Your task to perform on an android device: clear all cookies in the chrome app Image 0: 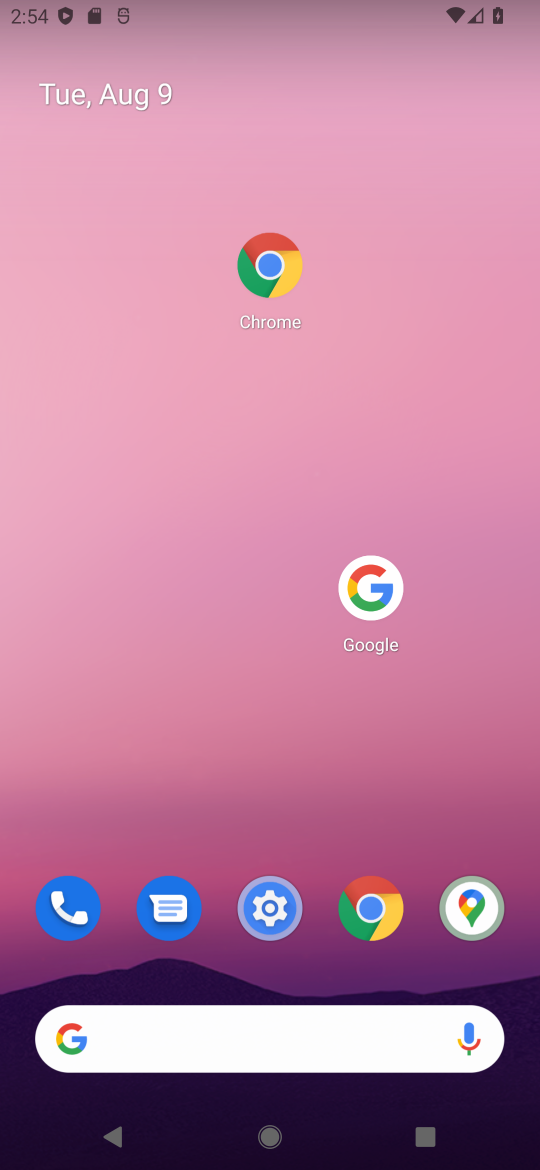
Step 0: press back button
Your task to perform on an android device: clear all cookies in the chrome app Image 1: 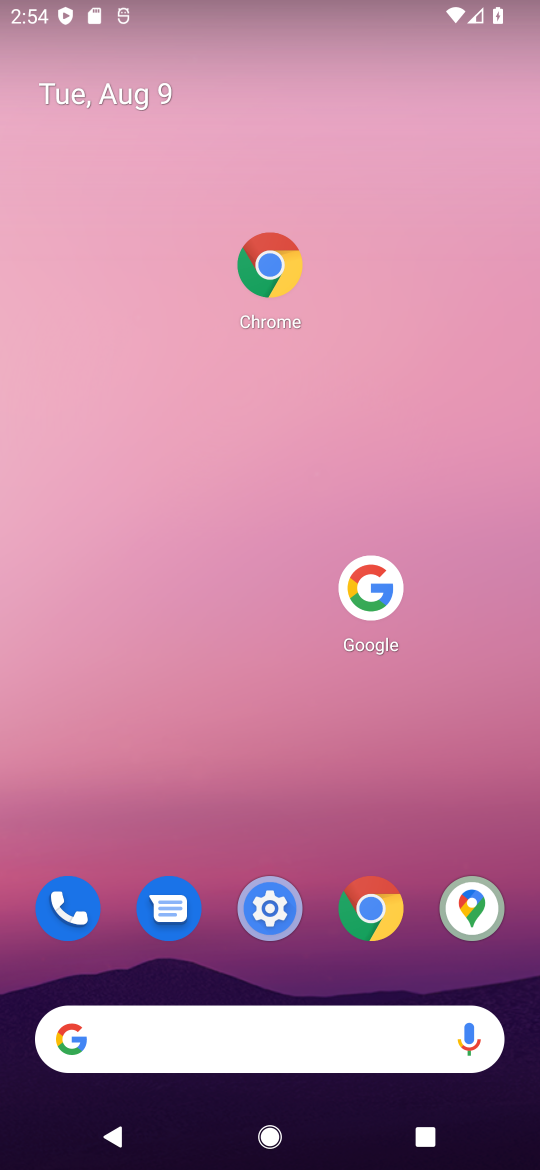
Step 1: drag from (205, 1107) to (160, 332)
Your task to perform on an android device: clear all cookies in the chrome app Image 2: 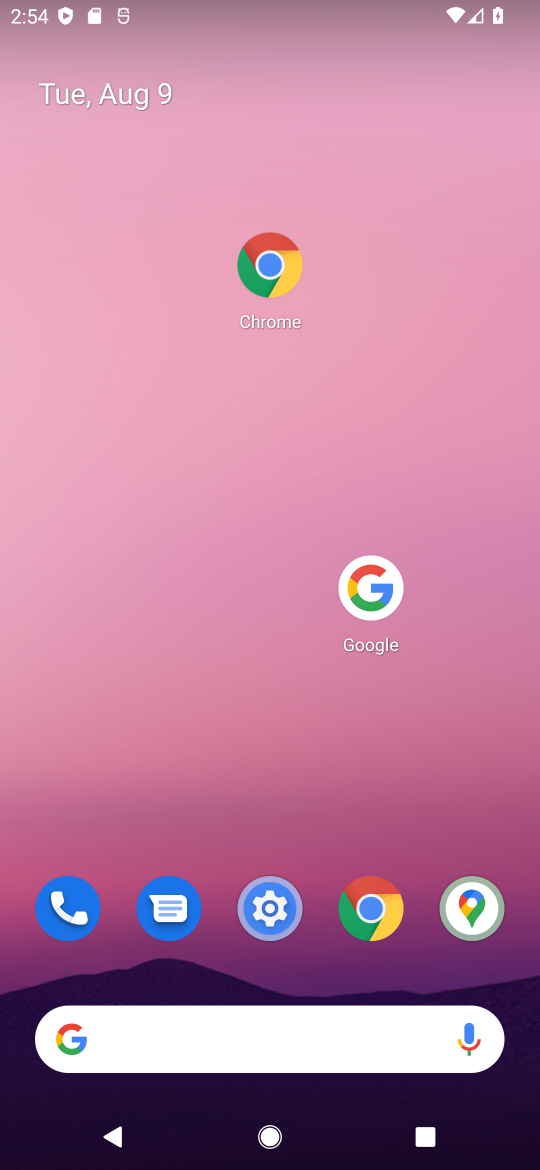
Step 2: drag from (250, 761) to (209, 369)
Your task to perform on an android device: clear all cookies in the chrome app Image 3: 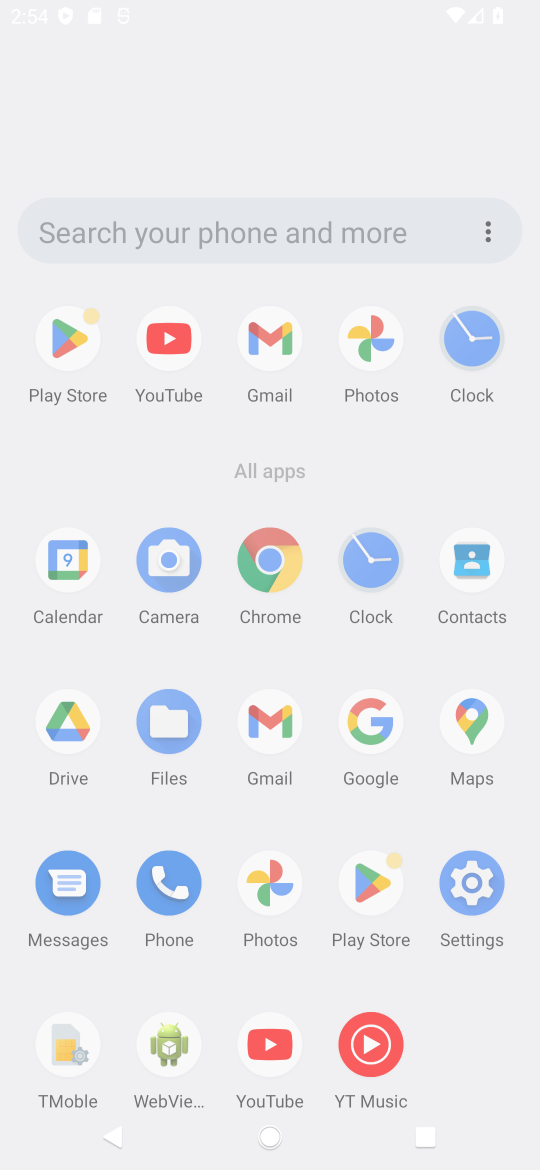
Step 3: click (344, 393)
Your task to perform on an android device: clear all cookies in the chrome app Image 4: 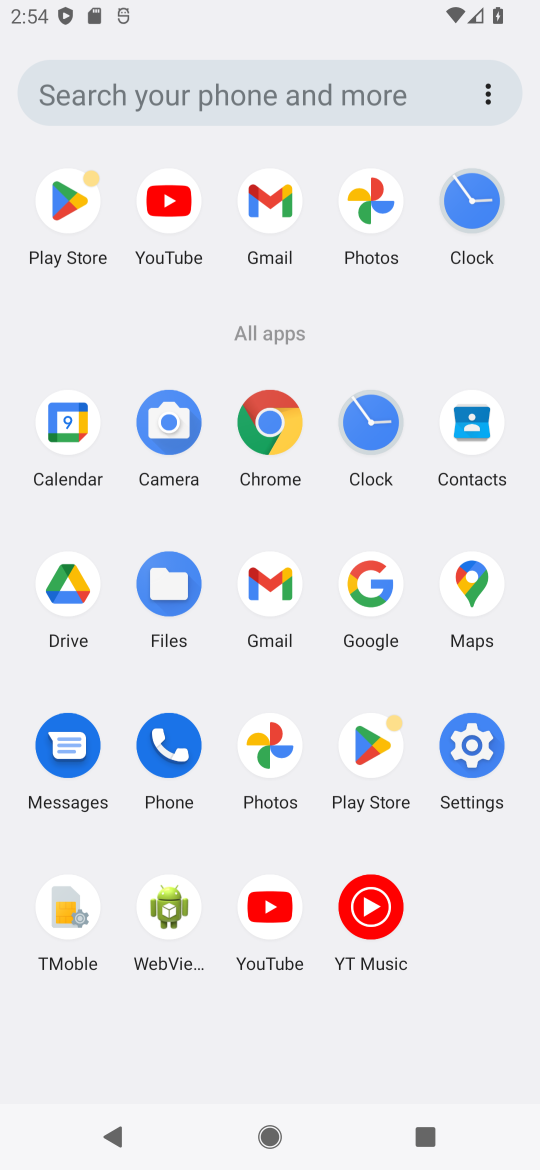
Step 4: drag from (315, 910) to (310, 429)
Your task to perform on an android device: clear all cookies in the chrome app Image 5: 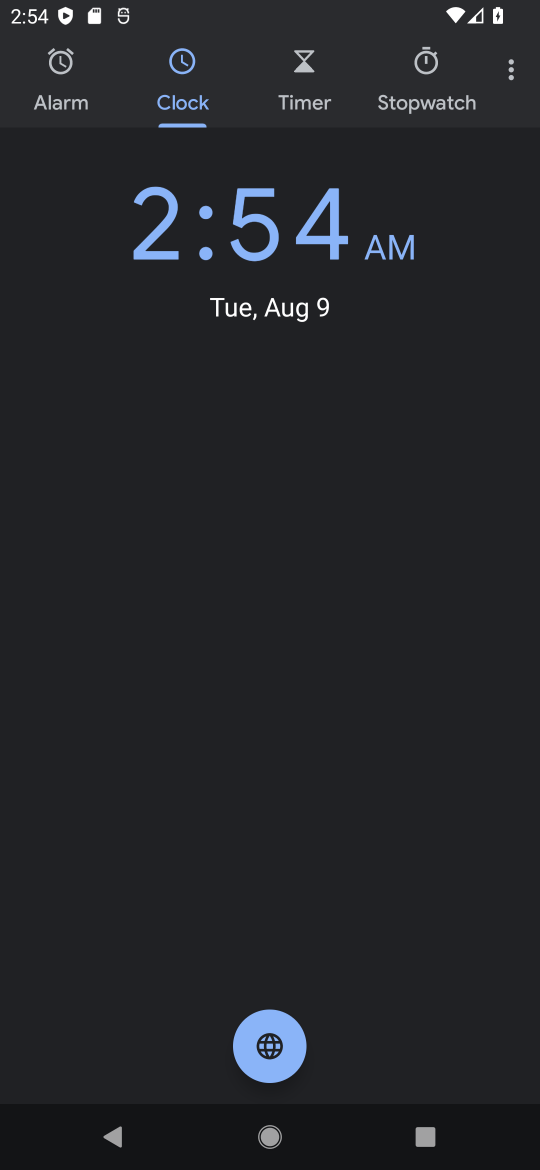
Step 5: press home button
Your task to perform on an android device: clear all cookies in the chrome app Image 6: 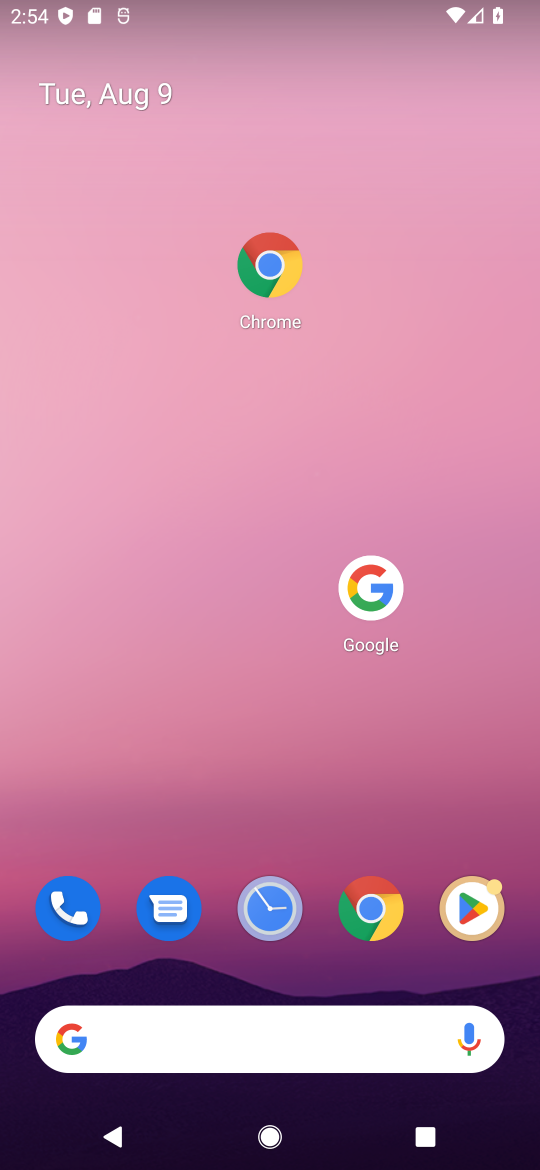
Step 6: drag from (87, 536) to (91, 388)
Your task to perform on an android device: clear all cookies in the chrome app Image 7: 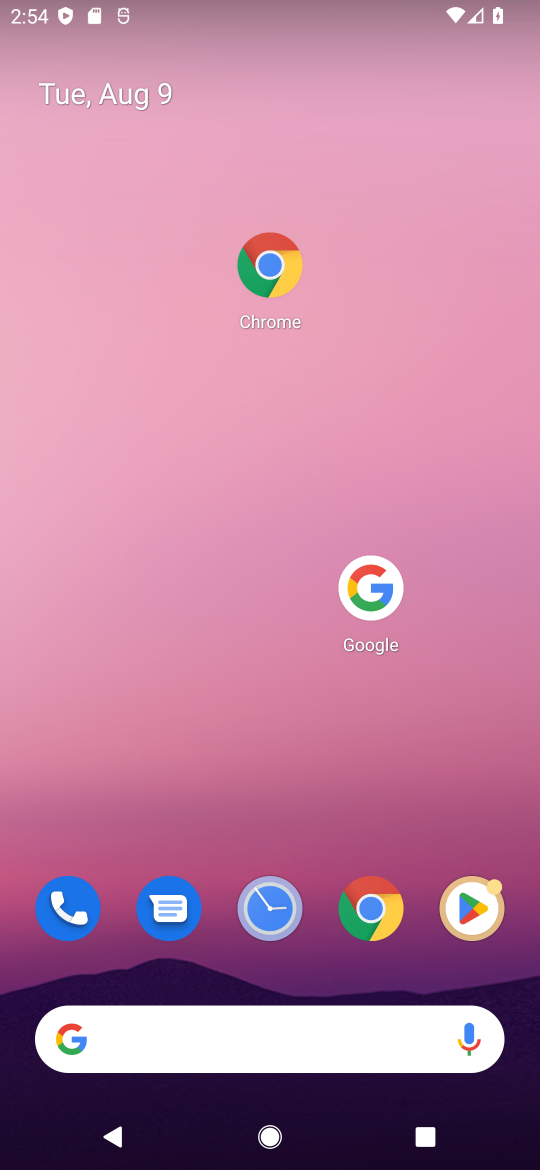
Step 7: click (298, 520)
Your task to perform on an android device: clear all cookies in the chrome app Image 8: 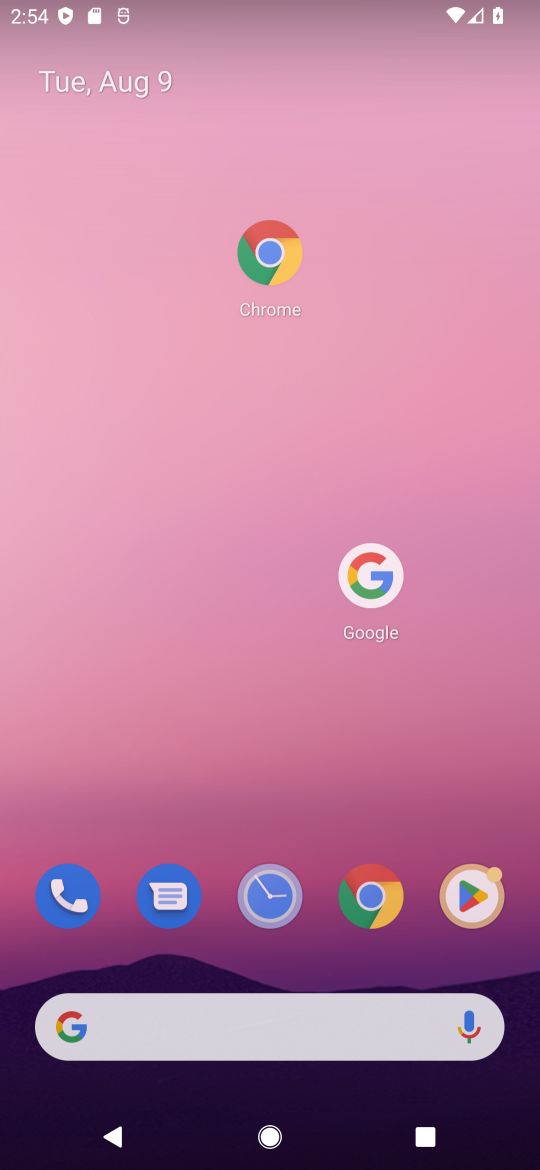
Step 8: click (353, 314)
Your task to perform on an android device: clear all cookies in the chrome app Image 9: 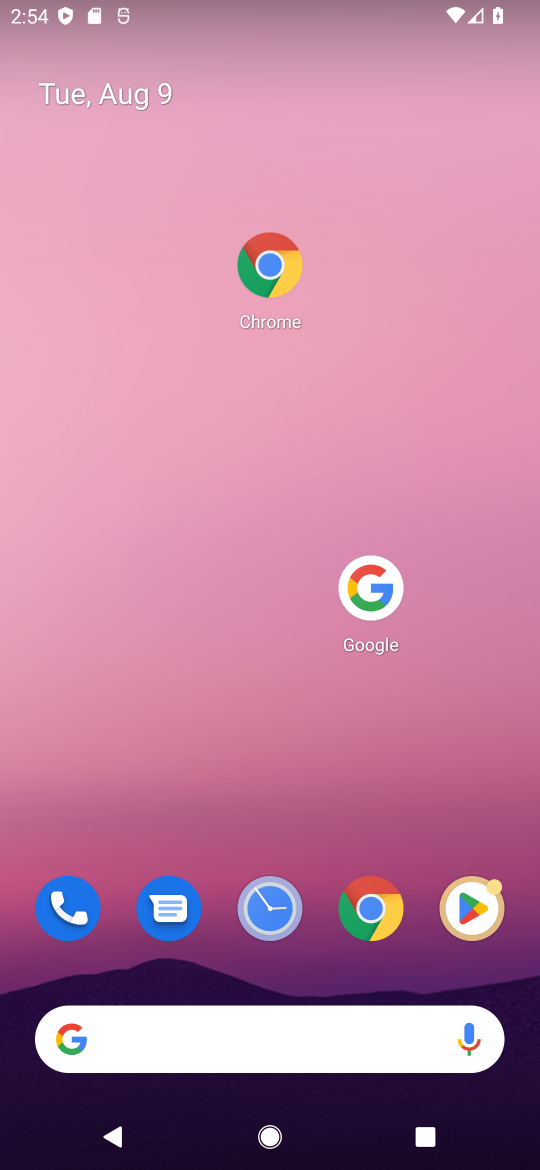
Step 9: drag from (274, 1130) to (280, 465)
Your task to perform on an android device: clear all cookies in the chrome app Image 10: 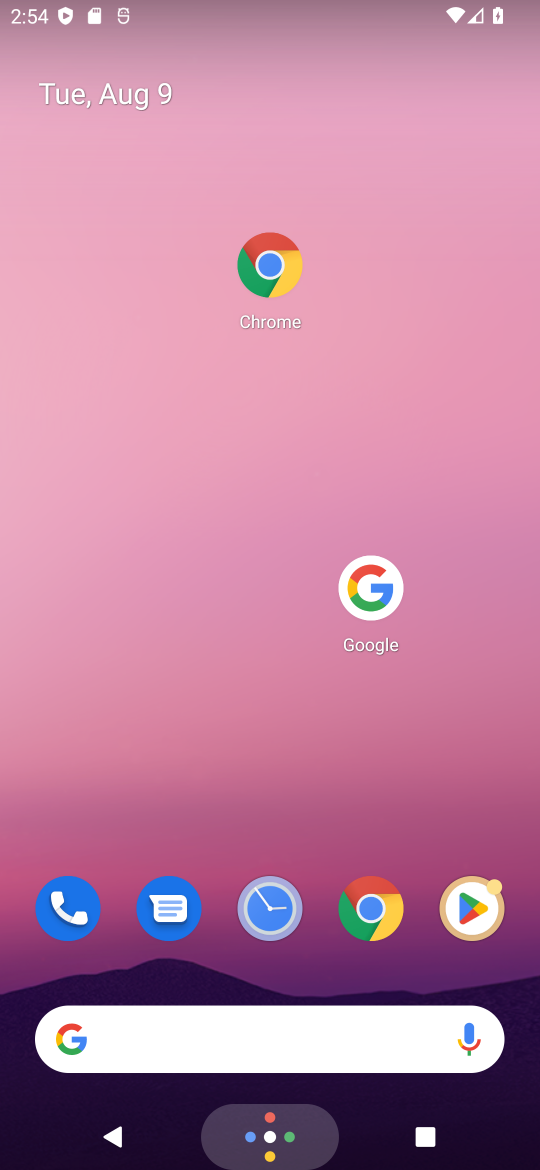
Step 10: drag from (342, 979) to (277, 449)
Your task to perform on an android device: clear all cookies in the chrome app Image 11: 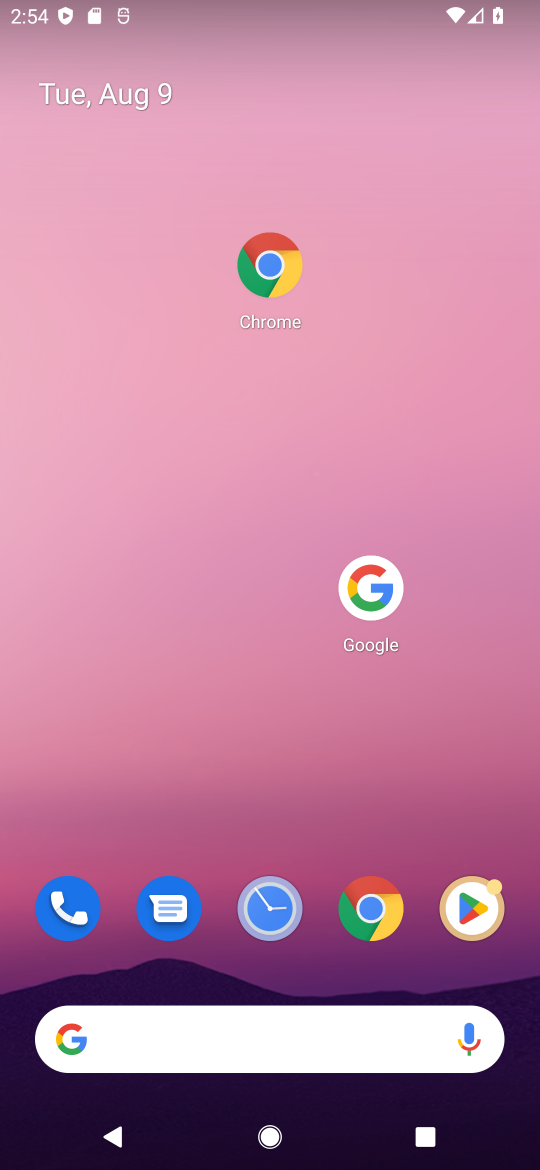
Step 11: drag from (327, 802) to (274, 323)
Your task to perform on an android device: clear all cookies in the chrome app Image 12: 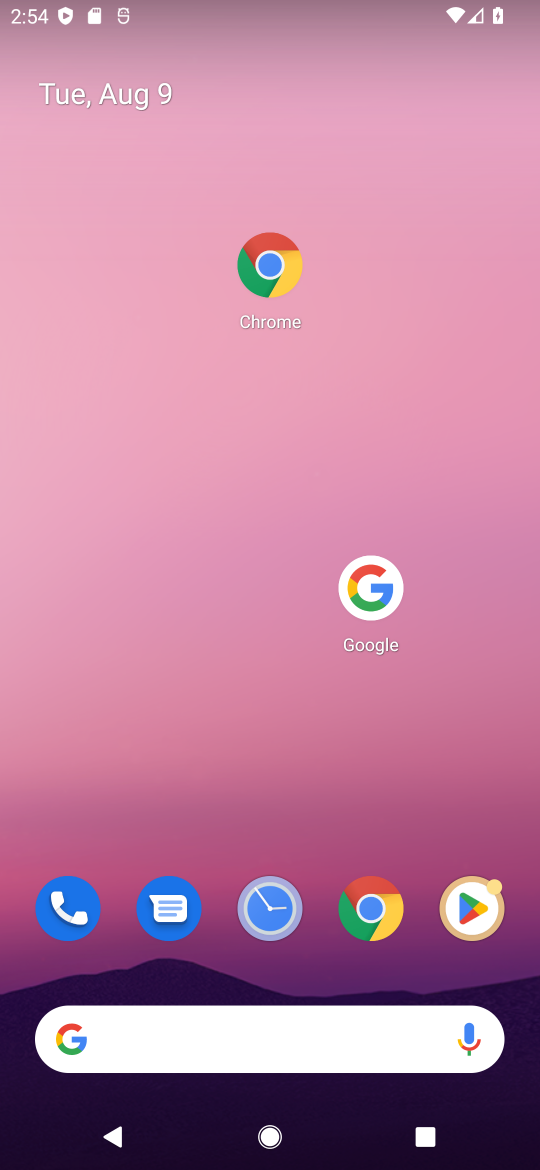
Step 12: drag from (298, 912) to (320, 431)
Your task to perform on an android device: clear all cookies in the chrome app Image 13: 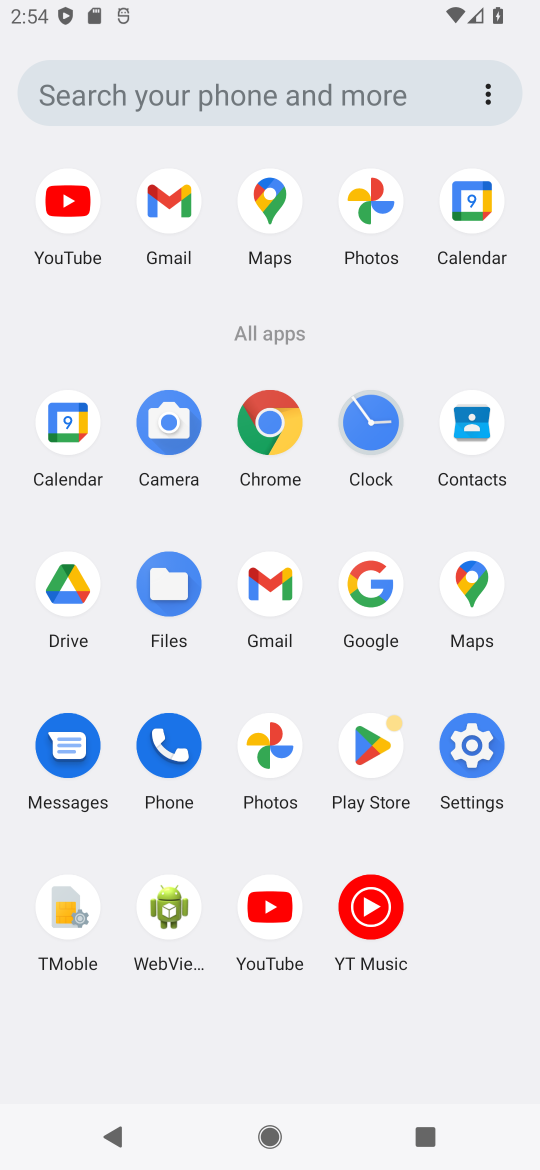
Step 13: drag from (353, 695) to (331, 360)
Your task to perform on an android device: clear all cookies in the chrome app Image 14: 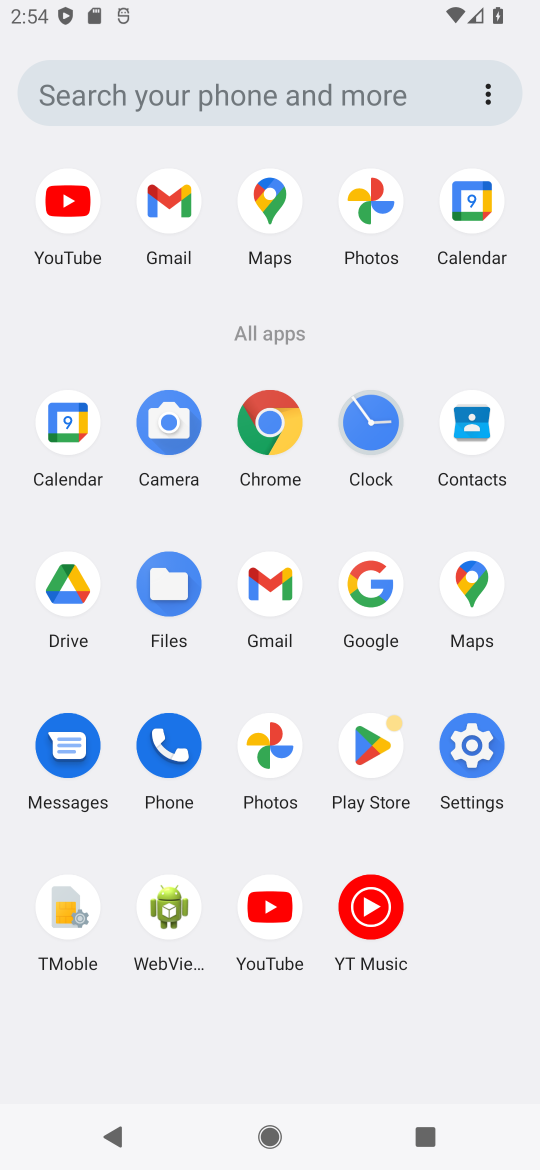
Step 14: click (276, 438)
Your task to perform on an android device: clear all cookies in the chrome app Image 15: 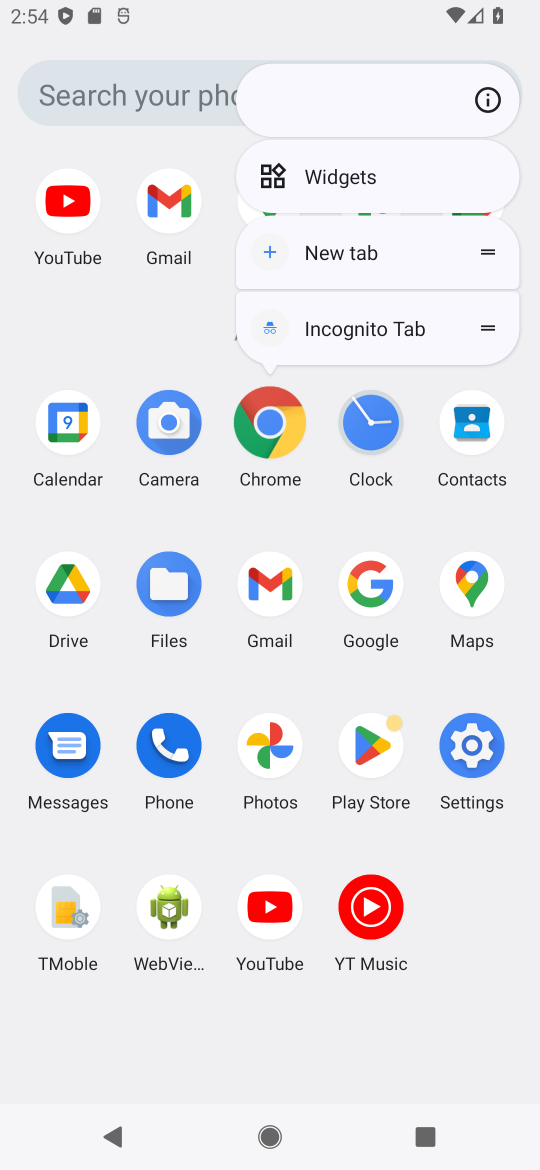
Step 15: click (277, 438)
Your task to perform on an android device: clear all cookies in the chrome app Image 16: 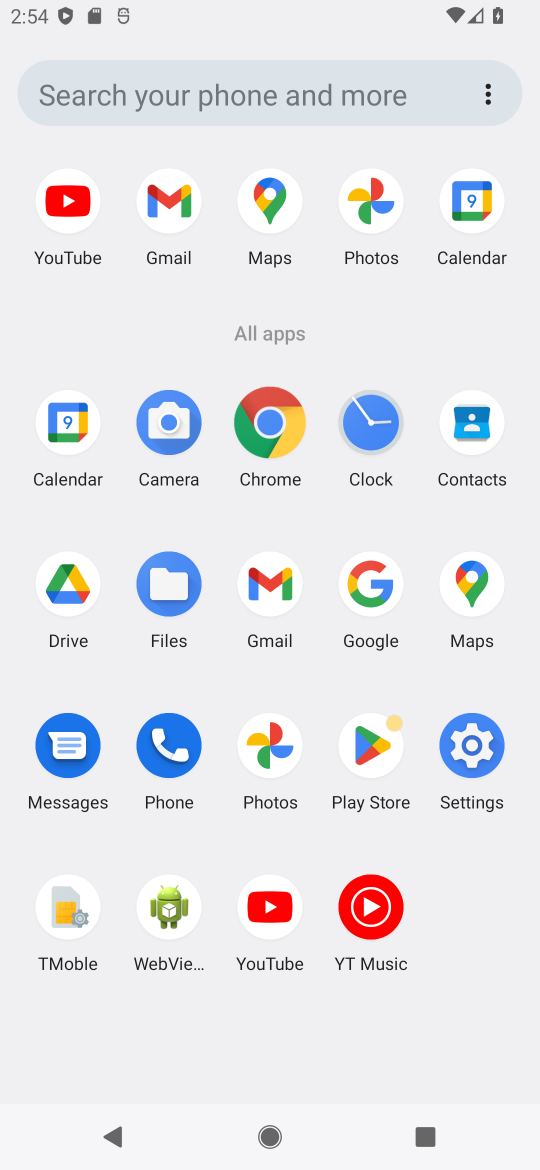
Step 16: click (279, 438)
Your task to perform on an android device: clear all cookies in the chrome app Image 17: 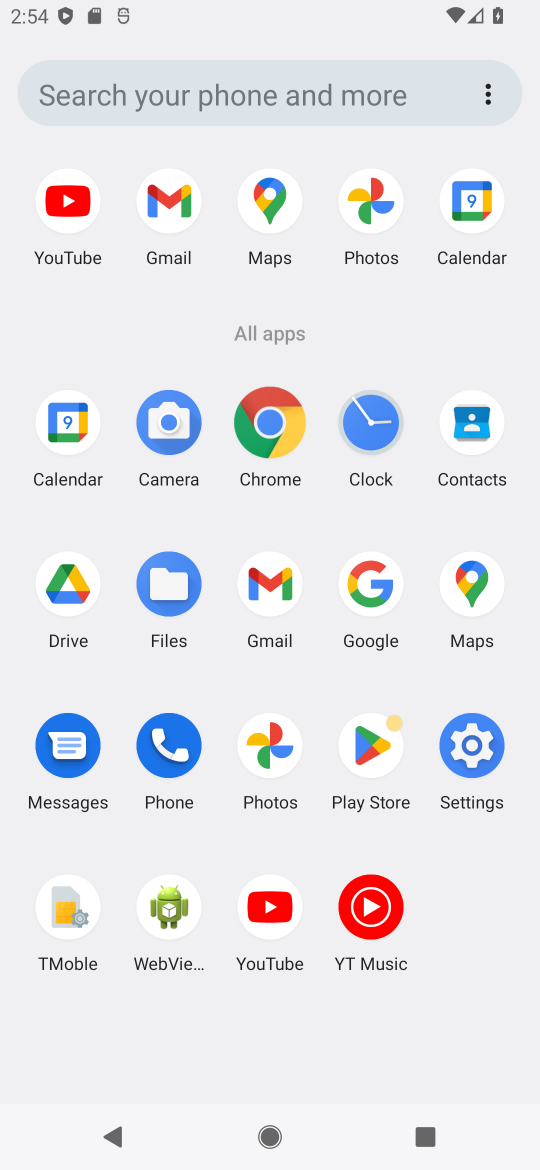
Step 17: click (275, 432)
Your task to perform on an android device: clear all cookies in the chrome app Image 18: 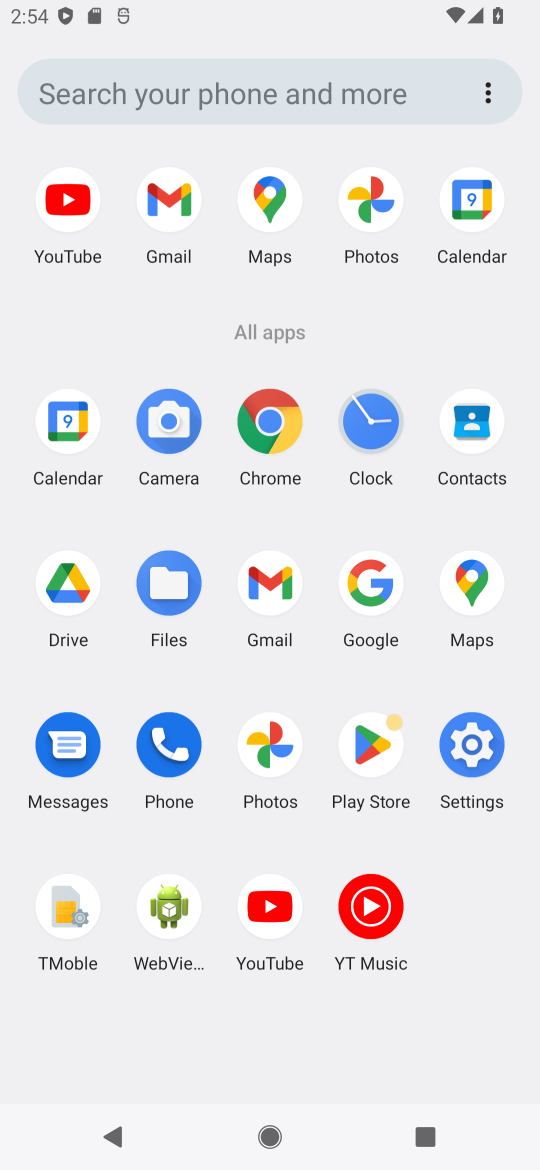
Step 18: click (270, 413)
Your task to perform on an android device: clear all cookies in the chrome app Image 19: 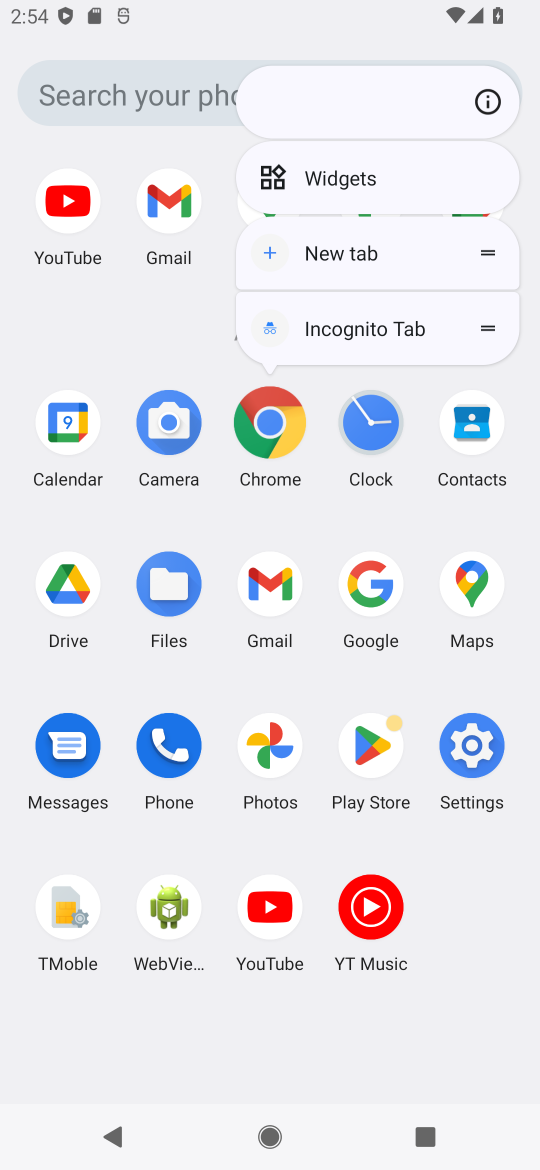
Step 19: click (272, 412)
Your task to perform on an android device: clear all cookies in the chrome app Image 20: 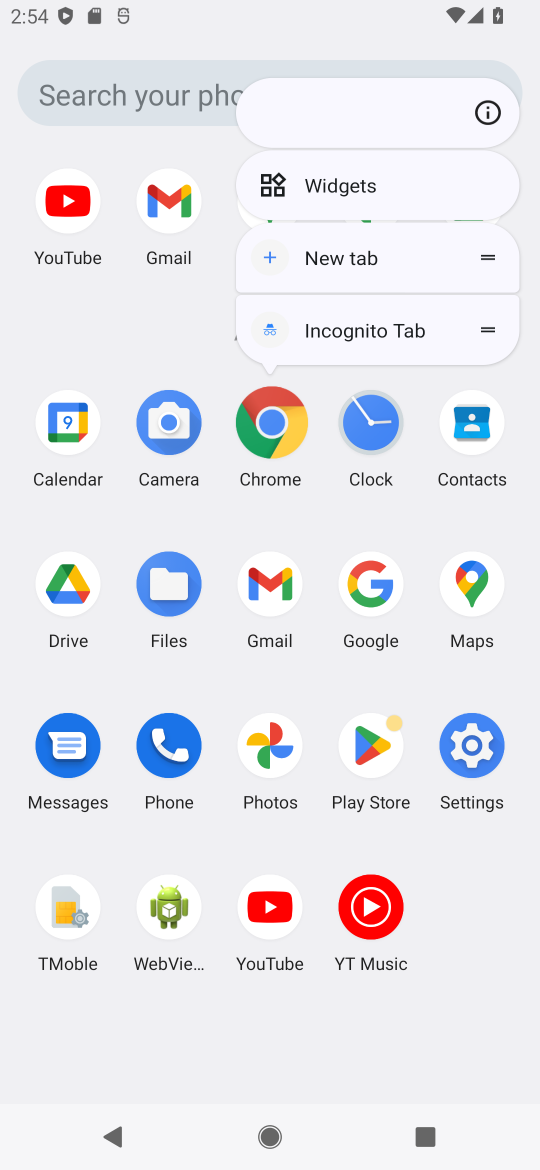
Step 20: click (276, 410)
Your task to perform on an android device: clear all cookies in the chrome app Image 21: 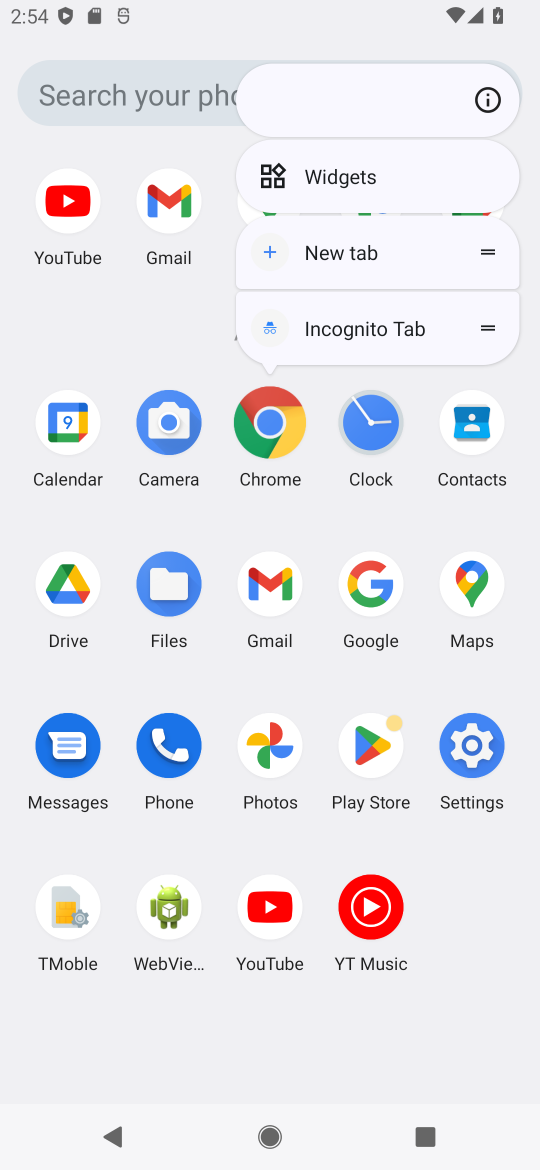
Step 21: click (279, 410)
Your task to perform on an android device: clear all cookies in the chrome app Image 22: 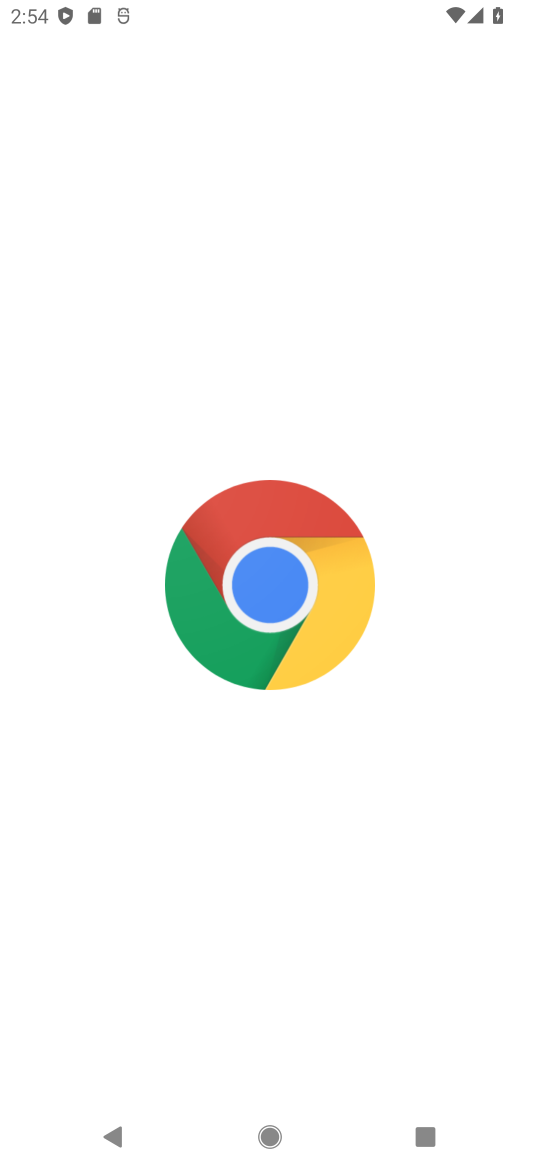
Step 22: click (274, 586)
Your task to perform on an android device: clear all cookies in the chrome app Image 23: 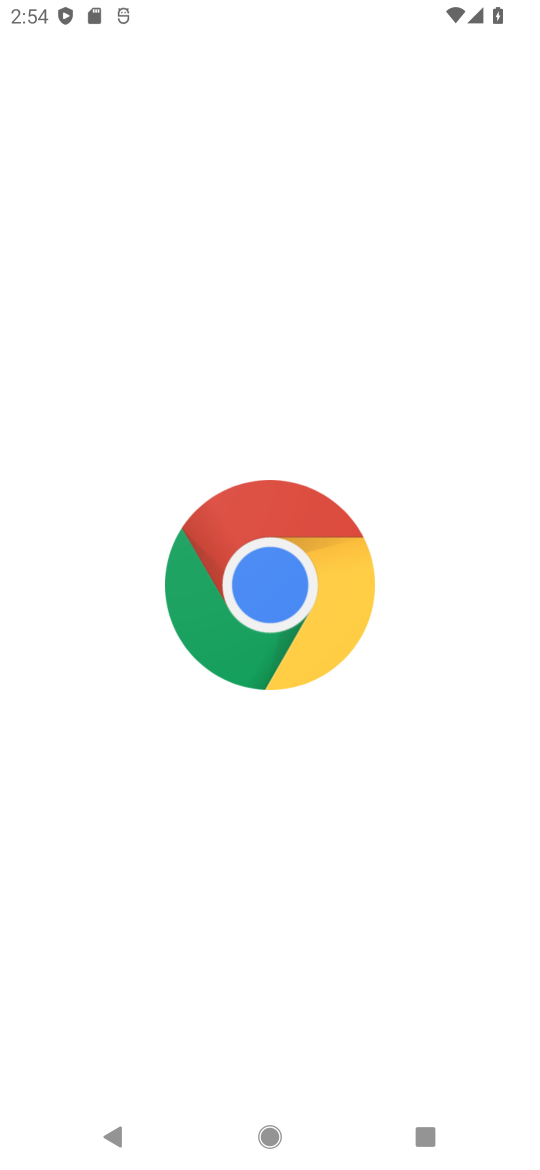
Step 23: click (277, 584)
Your task to perform on an android device: clear all cookies in the chrome app Image 24: 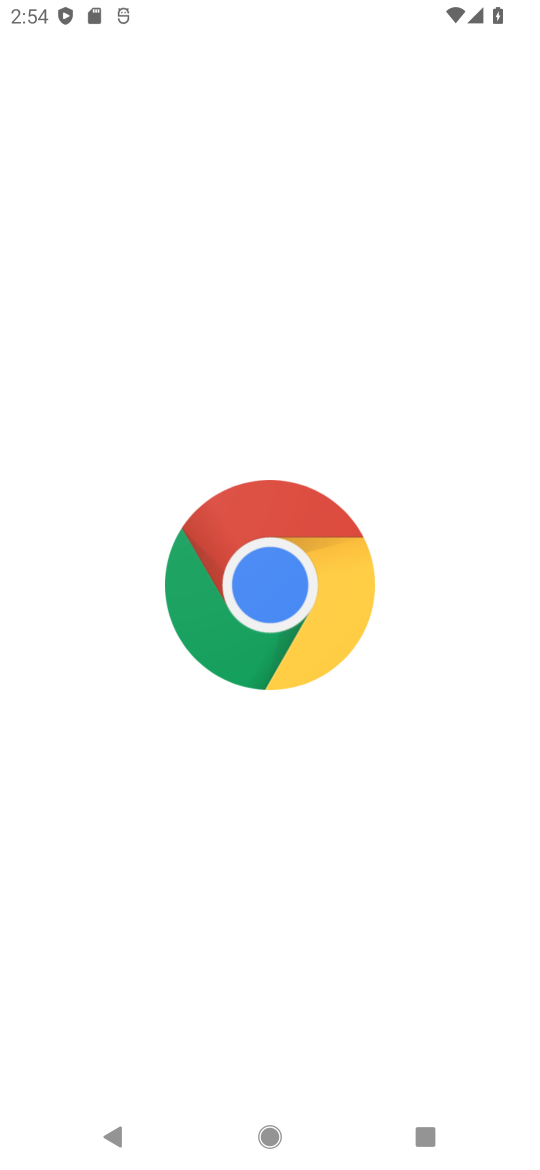
Step 24: click (283, 579)
Your task to perform on an android device: clear all cookies in the chrome app Image 25: 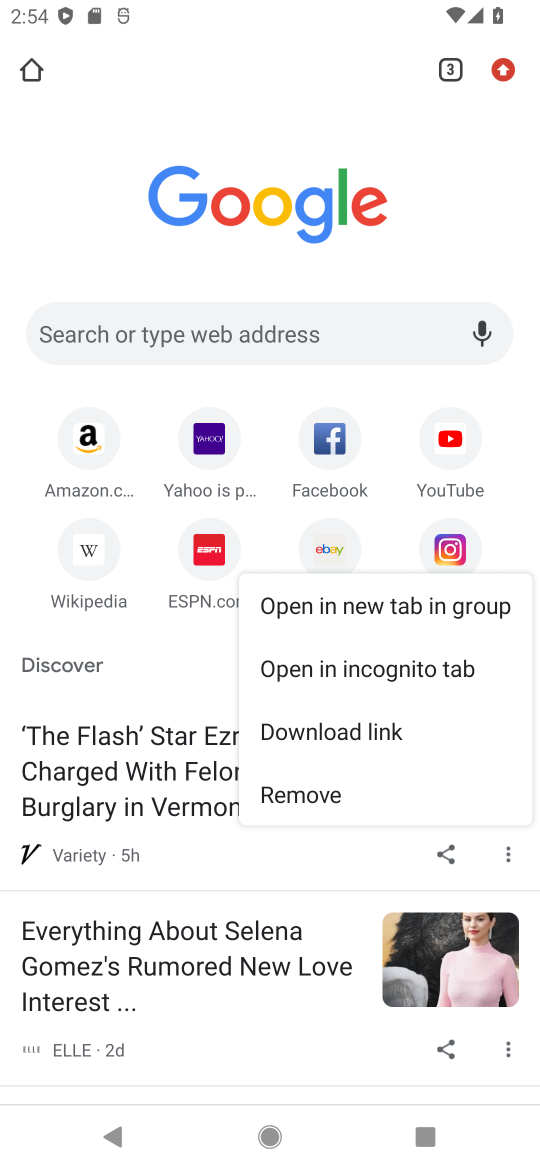
Step 25: drag from (501, 60) to (429, 637)
Your task to perform on an android device: clear all cookies in the chrome app Image 26: 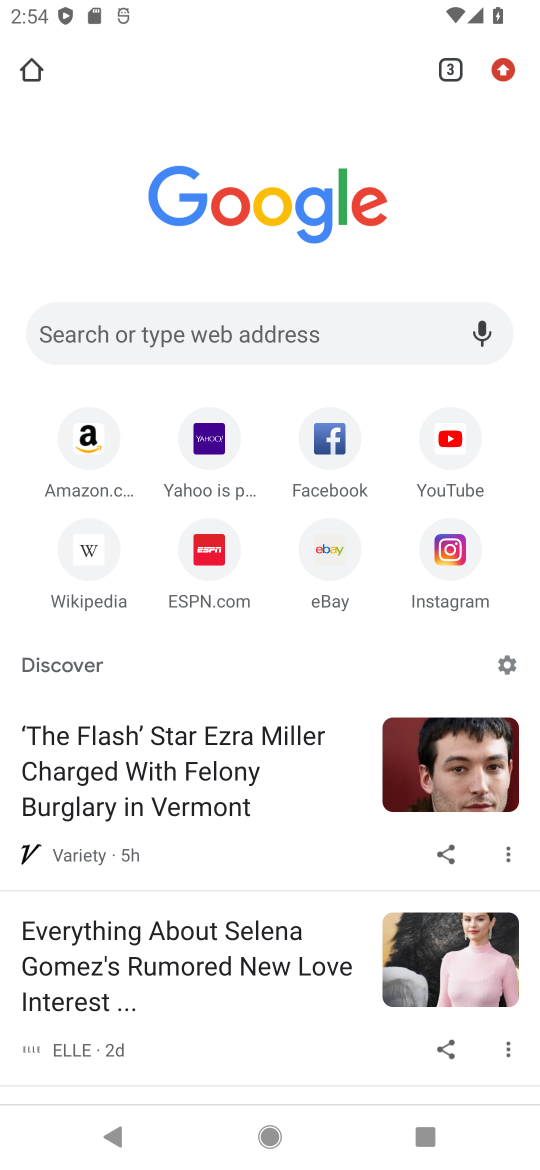
Step 26: drag from (499, 76) to (366, 590)
Your task to perform on an android device: clear all cookies in the chrome app Image 27: 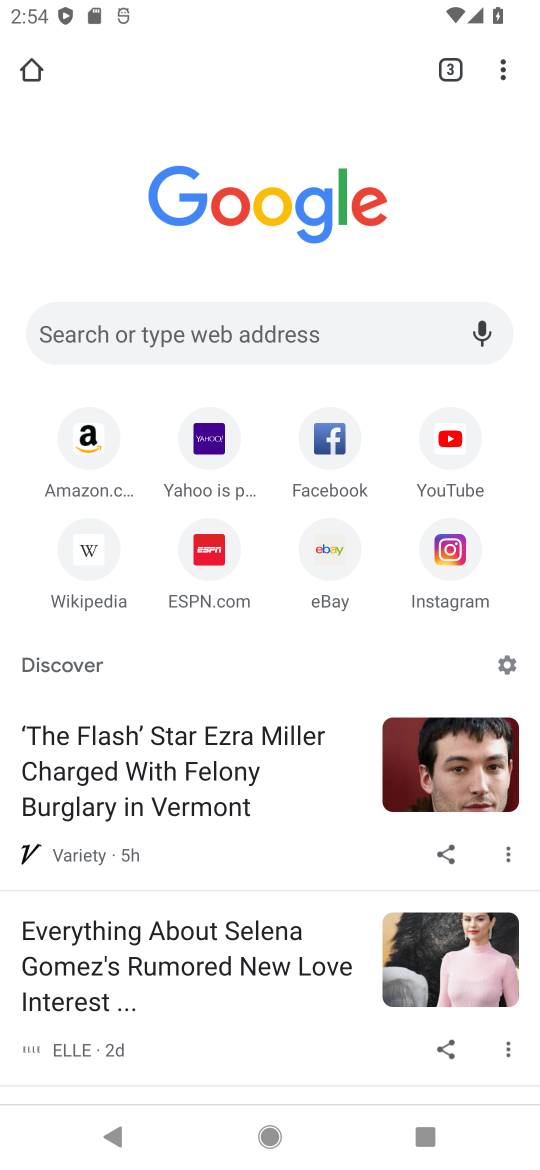
Step 27: drag from (499, 60) to (288, 712)
Your task to perform on an android device: clear all cookies in the chrome app Image 28: 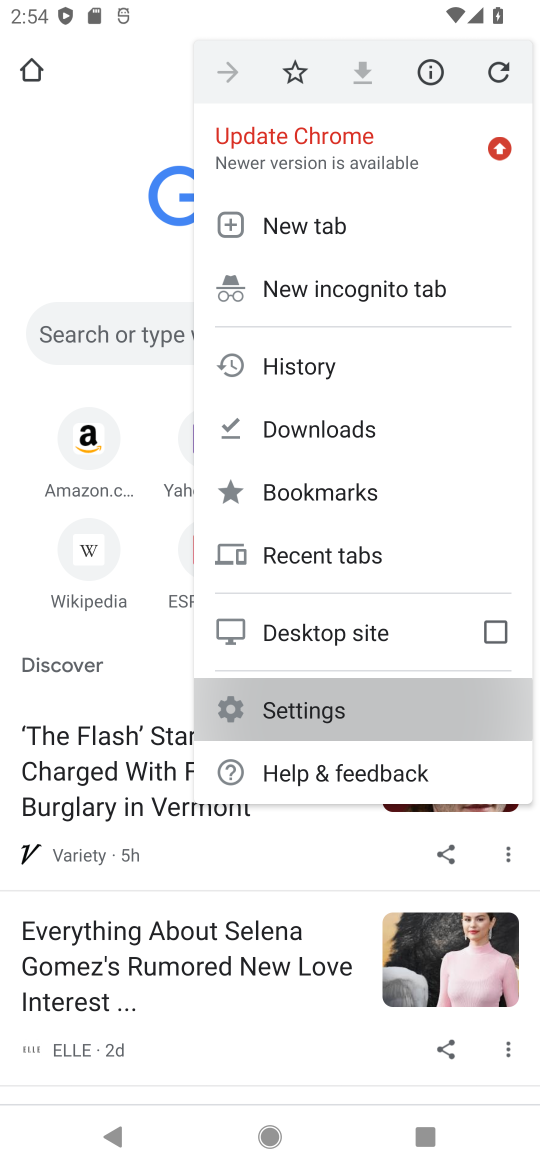
Step 28: click (312, 727)
Your task to perform on an android device: clear all cookies in the chrome app Image 29: 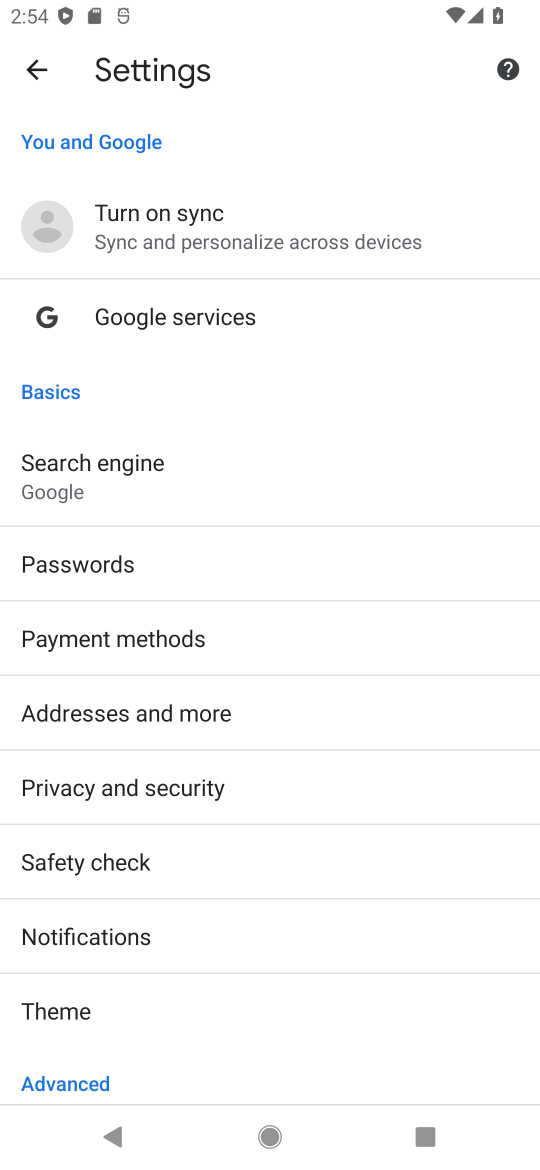
Step 29: drag from (112, 782) to (199, 303)
Your task to perform on an android device: clear all cookies in the chrome app Image 30: 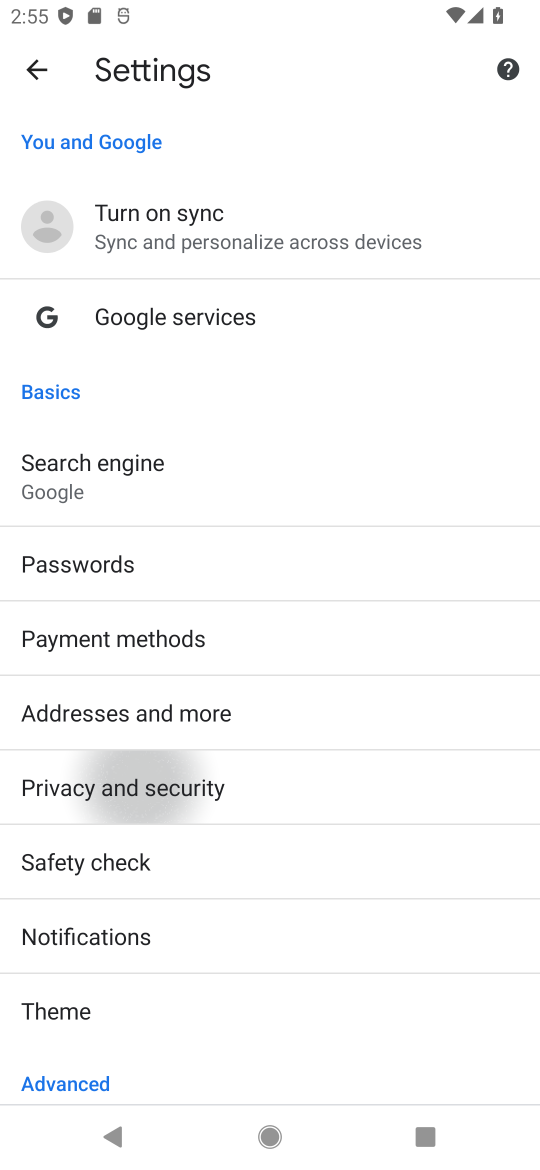
Step 30: drag from (244, 667) to (244, 262)
Your task to perform on an android device: clear all cookies in the chrome app Image 31: 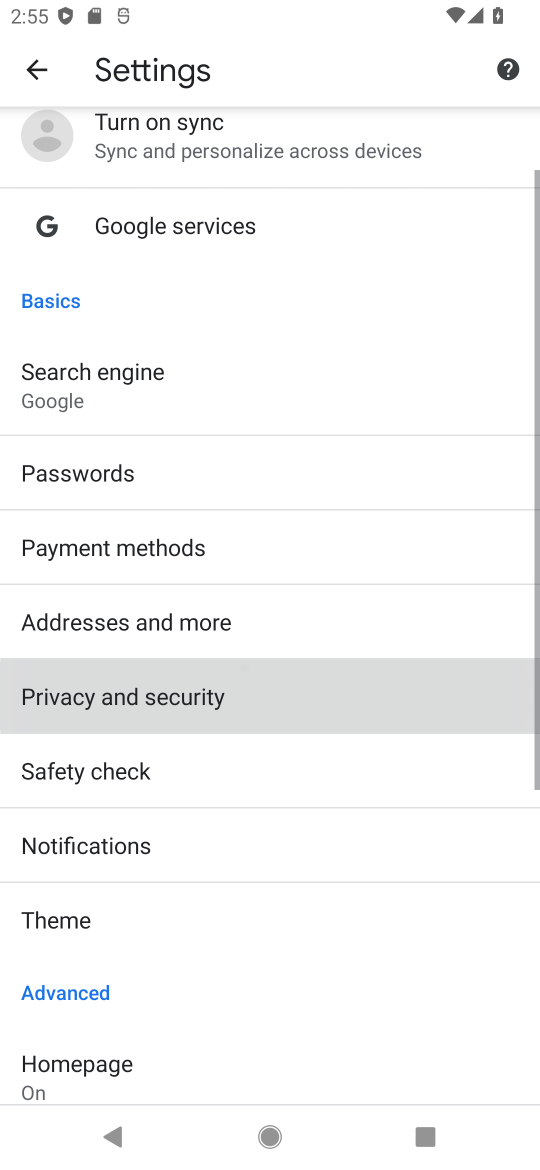
Step 31: drag from (137, 676) to (137, 571)
Your task to perform on an android device: clear all cookies in the chrome app Image 32: 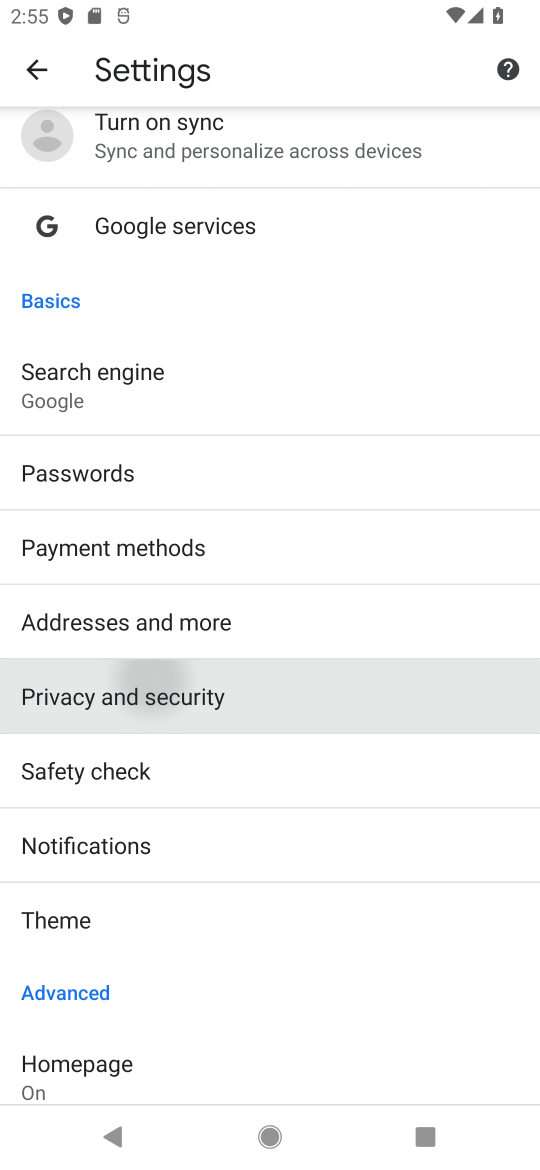
Step 32: drag from (131, 929) to (132, 451)
Your task to perform on an android device: clear all cookies in the chrome app Image 33: 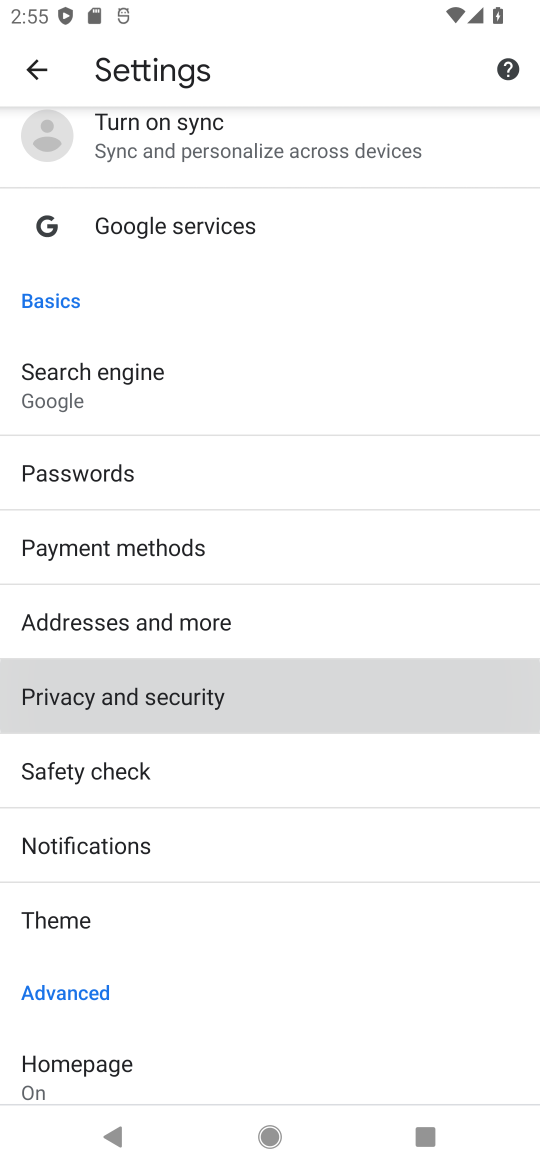
Step 33: drag from (174, 902) to (195, 616)
Your task to perform on an android device: clear all cookies in the chrome app Image 34: 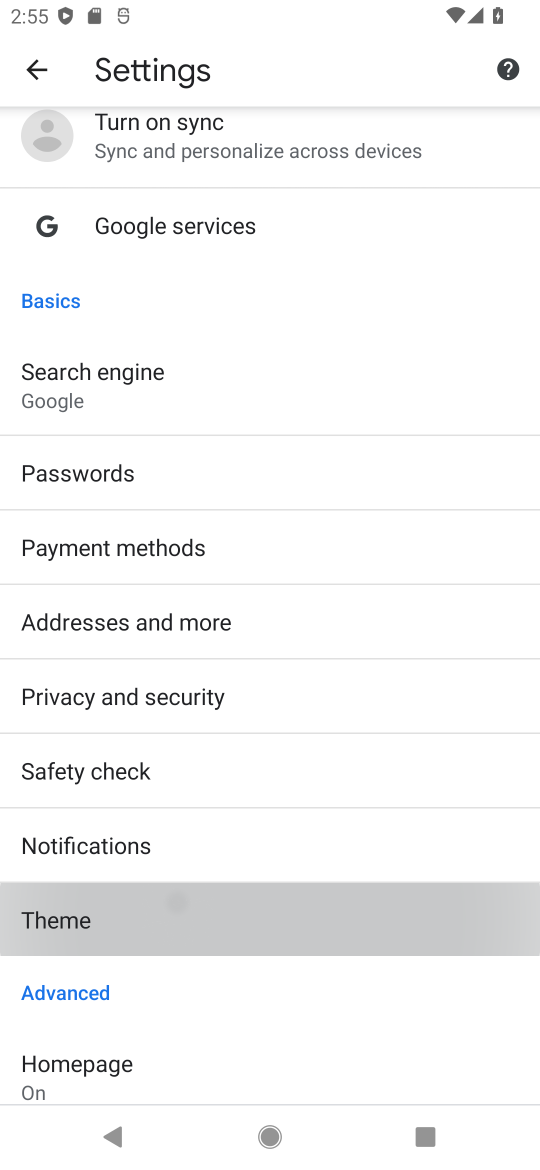
Step 34: drag from (209, 1010) to (232, 515)
Your task to perform on an android device: clear all cookies in the chrome app Image 35: 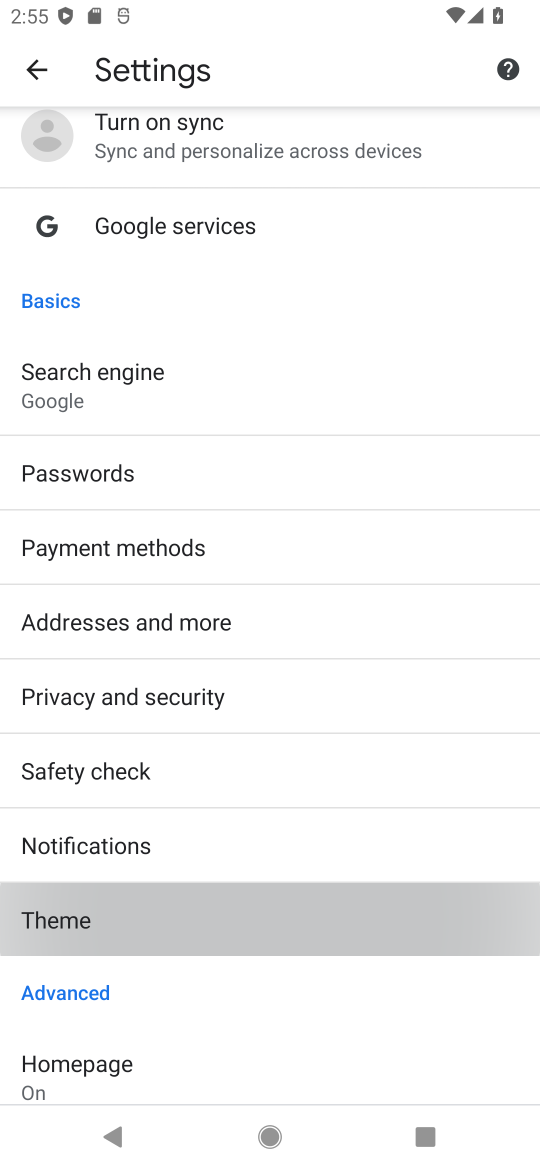
Step 35: drag from (179, 994) to (181, 677)
Your task to perform on an android device: clear all cookies in the chrome app Image 36: 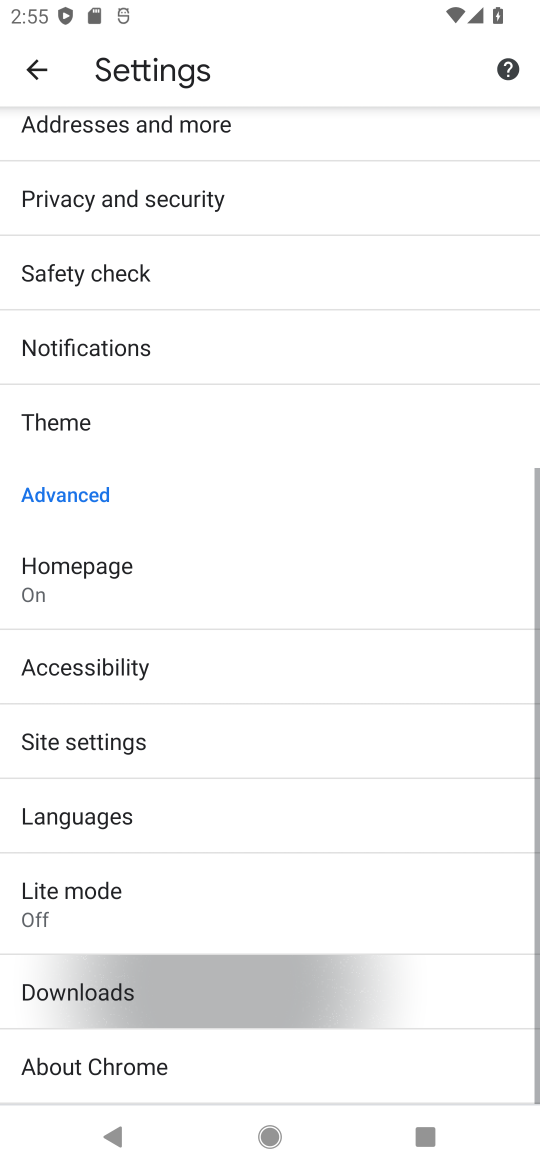
Step 36: drag from (181, 1094) to (179, 701)
Your task to perform on an android device: clear all cookies in the chrome app Image 37: 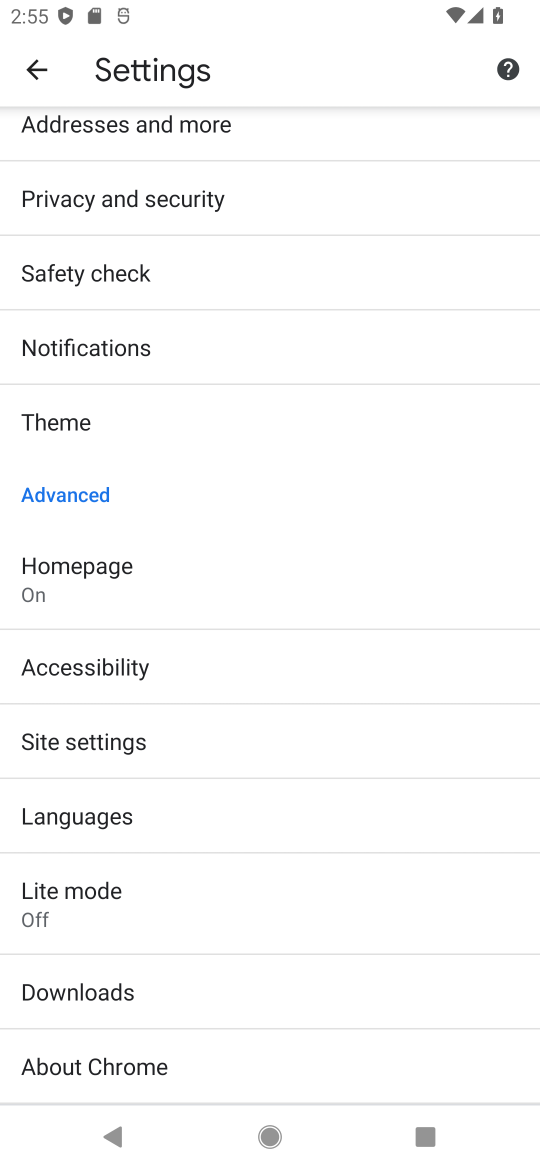
Step 37: click (74, 742)
Your task to perform on an android device: clear all cookies in the chrome app Image 38: 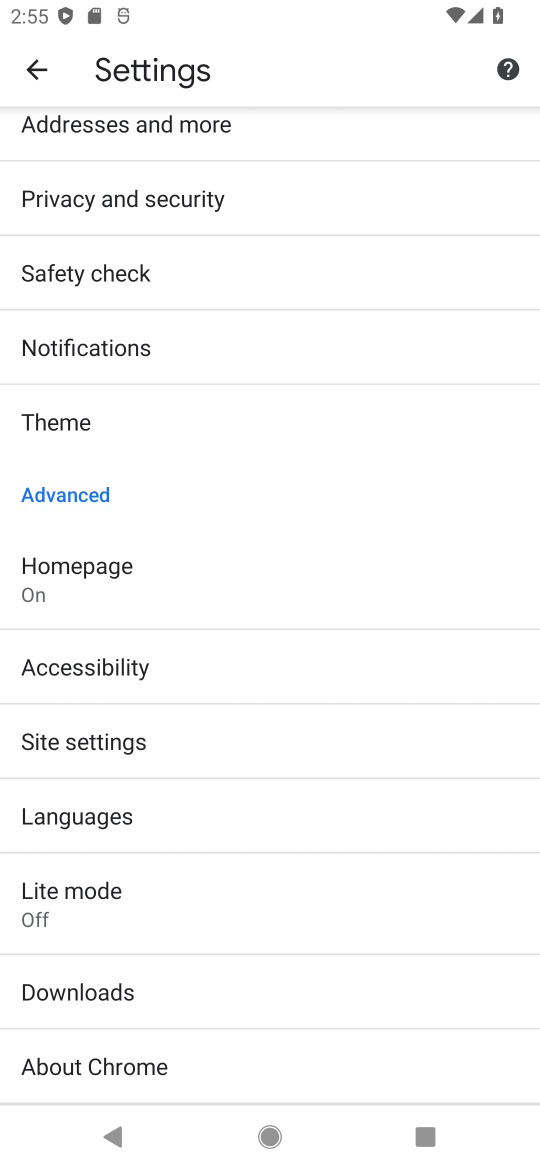
Step 38: click (74, 742)
Your task to perform on an android device: clear all cookies in the chrome app Image 39: 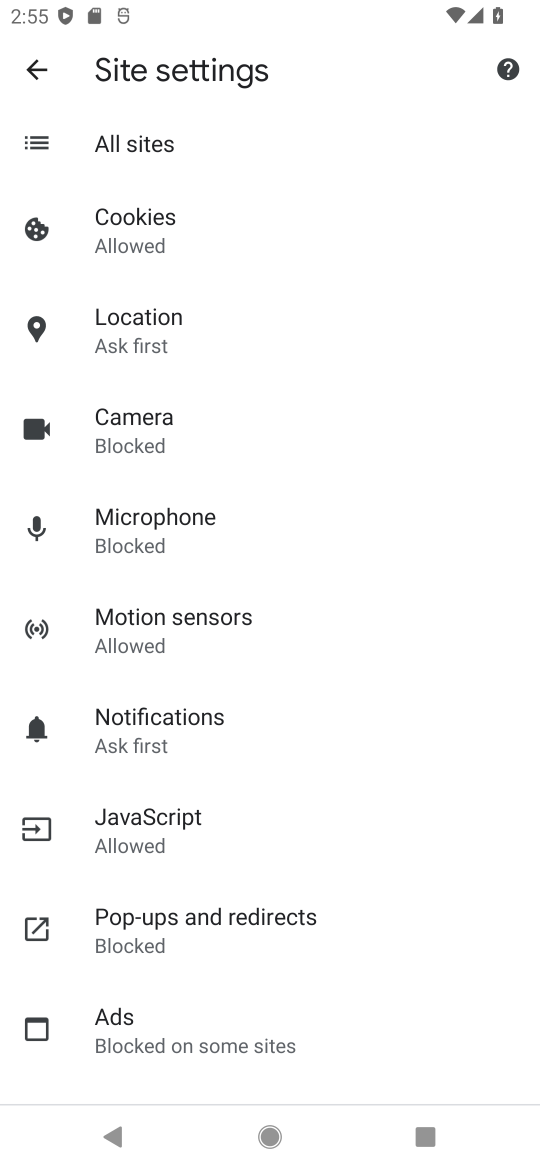
Step 39: click (120, 231)
Your task to perform on an android device: clear all cookies in the chrome app Image 40: 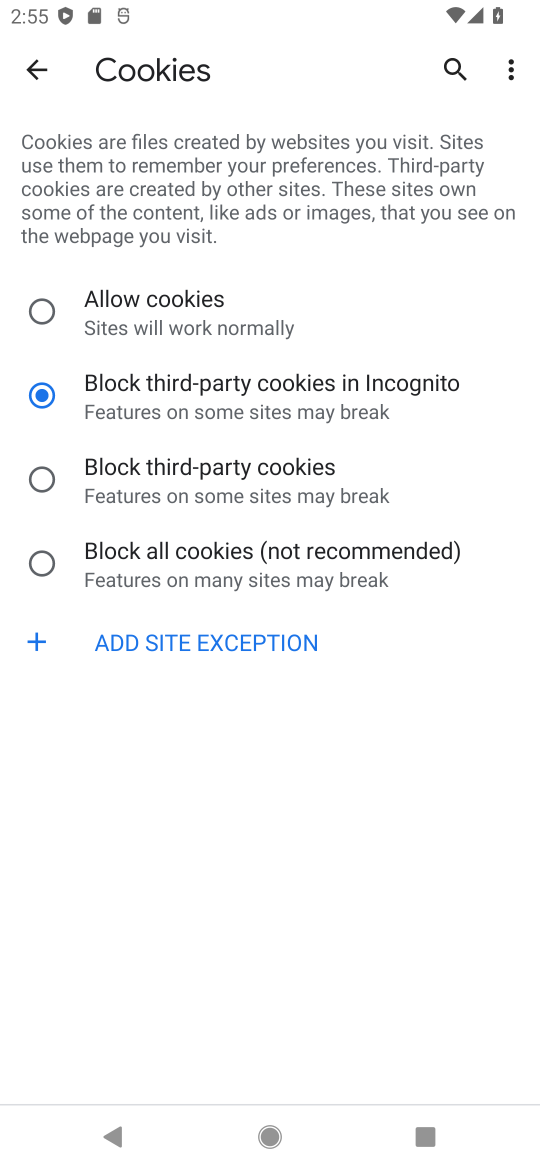
Step 40: task complete